Your task to perform on an android device: Open Chrome and go to settings Image 0: 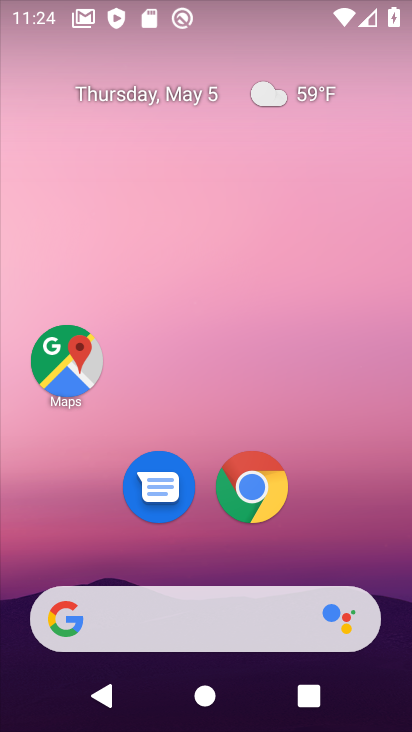
Step 0: click (251, 489)
Your task to perform on an android device: Open Chrome and go to settings Image 1: 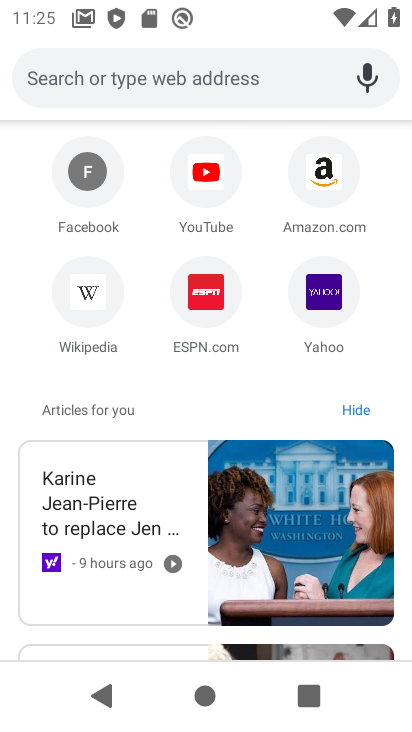
Step 1: drag from (364, 242) to (339, 512)
Your task to perform on an android device: Open Chrome and go to settings Image 2: 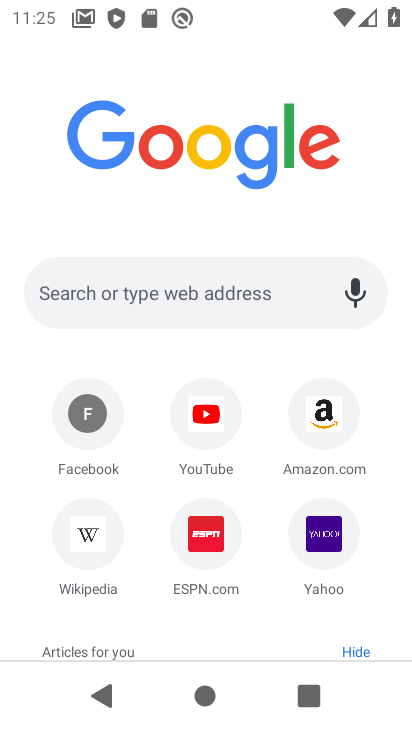
Step 2: drag from (358, 114) to (332, 413)
Your task to perform on an android device: Open Chrome and go to settings Image 3: 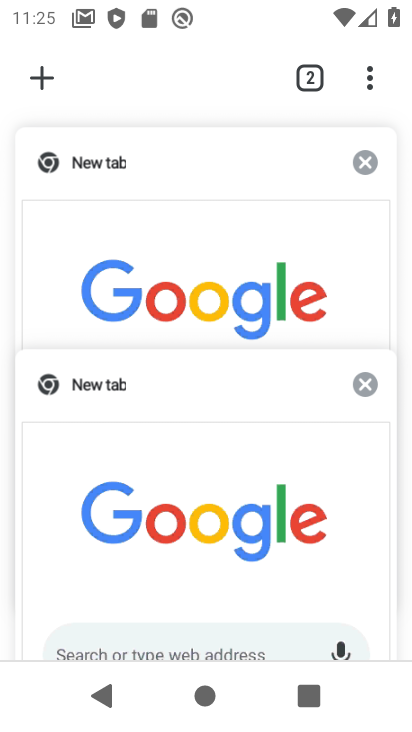
Step 3: click (369, 81)
Your task to perform on an android device: Open Chrome and go to settings Image 4: 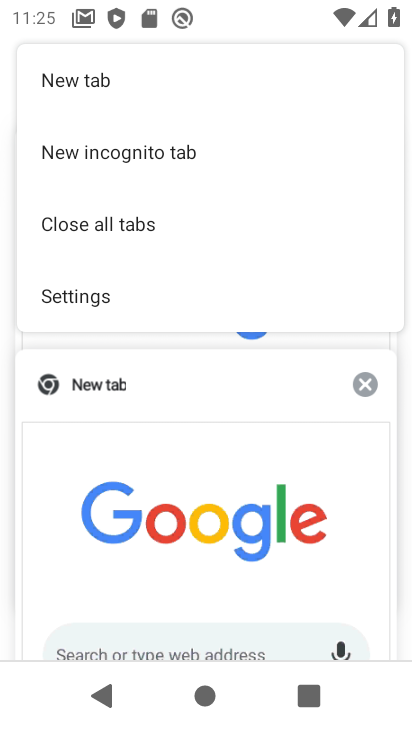
Step 4: click (78, 300)
Your task to perform on an android device: Open Chrome and go to settings Image 5: 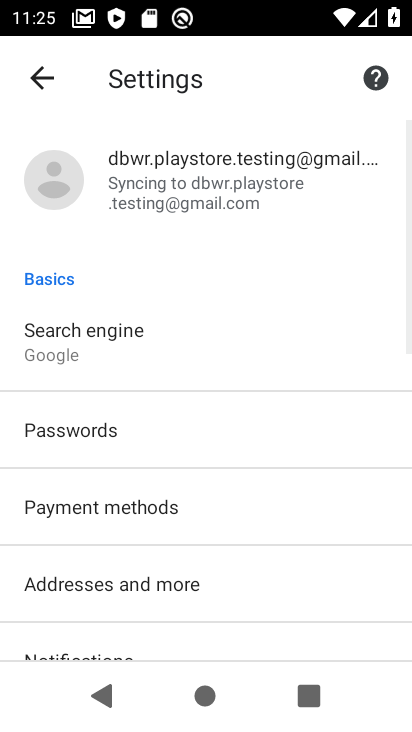
Step 5: task complete